Your task to perform on an android device: Open Google Chrome and open the bookmarks view Image 0: 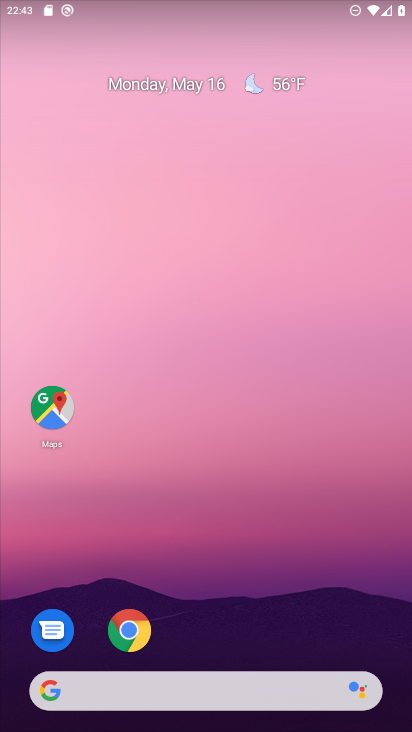
Step 0: click (347, 25)
Your task to perform on an android device: Open Google Chrome and open the bookmarks view Image 1: 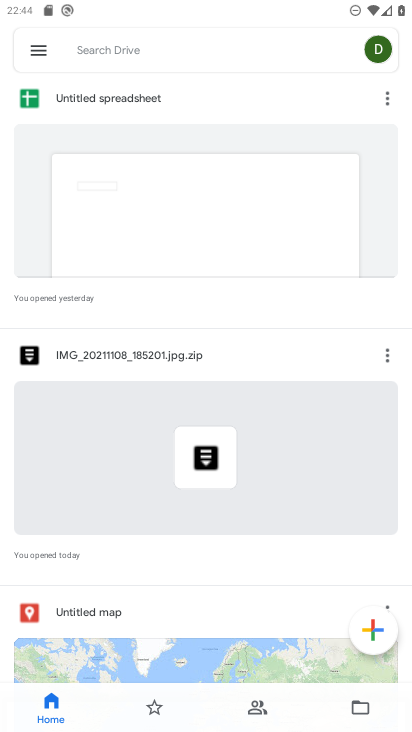
Step 1: press home button
Your task to perform on an android device: Open Google Chrome and open the bookmarks view Image 2: 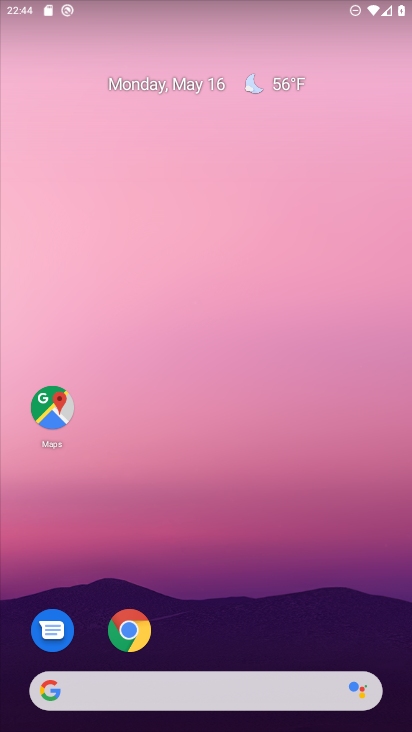
Step 2: click (131, 628)
Your task to perform on an android device: Open Google Chrome and open the bookmarks view Image 3: 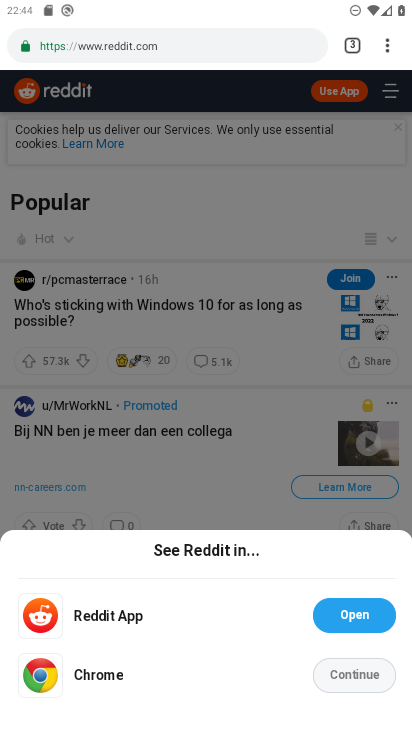
Step 3: click (388, 44)
Your task to perform on an android device: Open Google Chrome and open the bookmarks view Image 4: 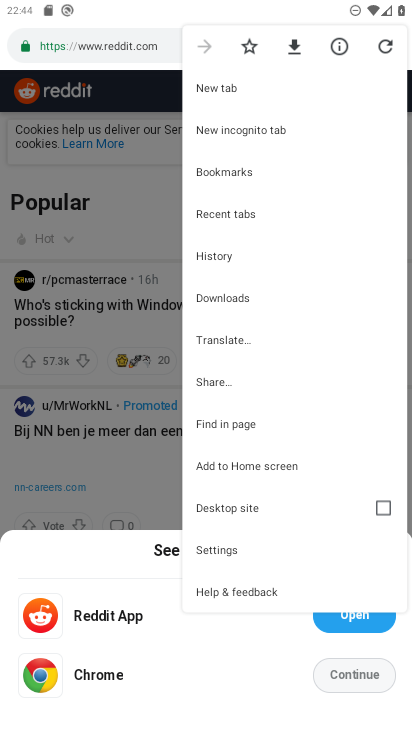
Step 4: click (220, 550)
Your task to perform on an android device: Open Google Chrome and open the bookmarks view Image 5: 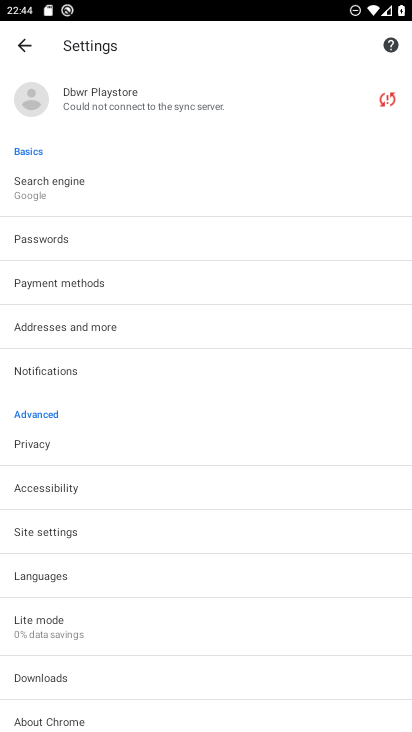
Step 5: click (26, 42)
Your task to perform on an android device: Open Google Chrome and open the bookmarks view Image 6: 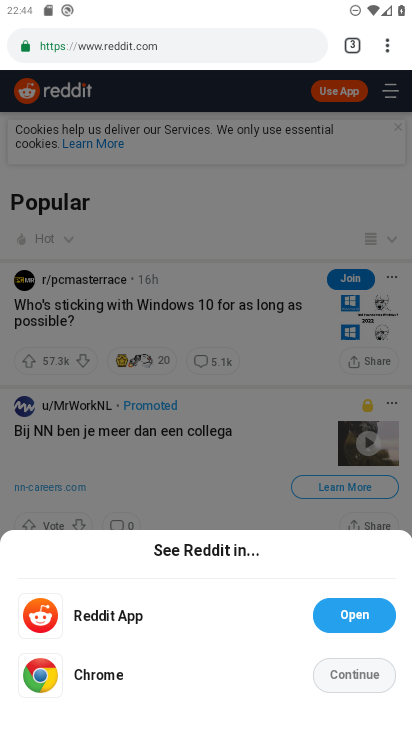
Step 6: click (384, 47)
Your task to perform on an android device: Open Google Chrome and open the bookmarks view Image 7: 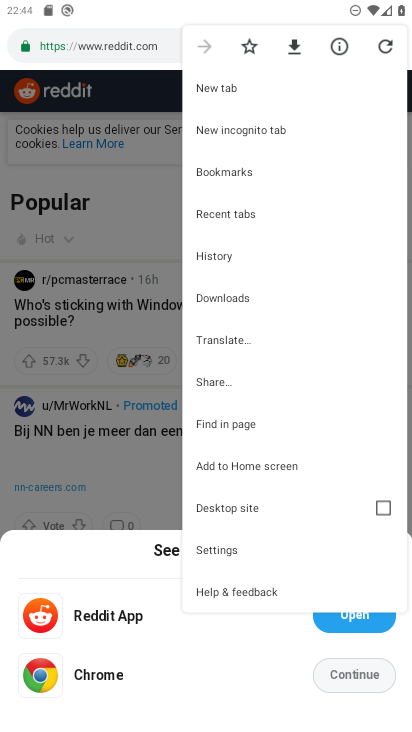
Step 7: click (245, 174)
Your task to perform on an android device: Open Google Chrome and open the bookmarks view Image 8: 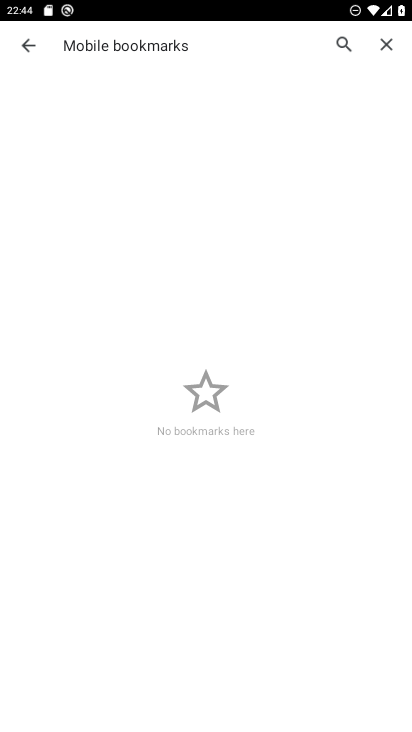
Step 8: task complete